Your task to perform on an android device: Find coffee shops on Maps Image 0: 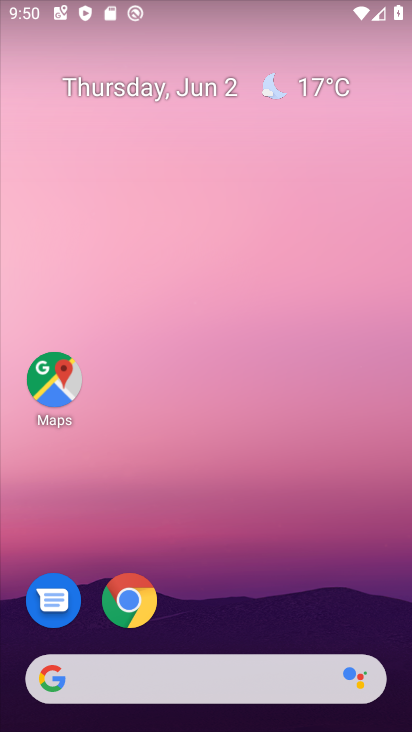
Step 0: drag from (264, 590) to (212, 0)
Your task to perform on an android device: Find coffee shops on Maps Image 1: 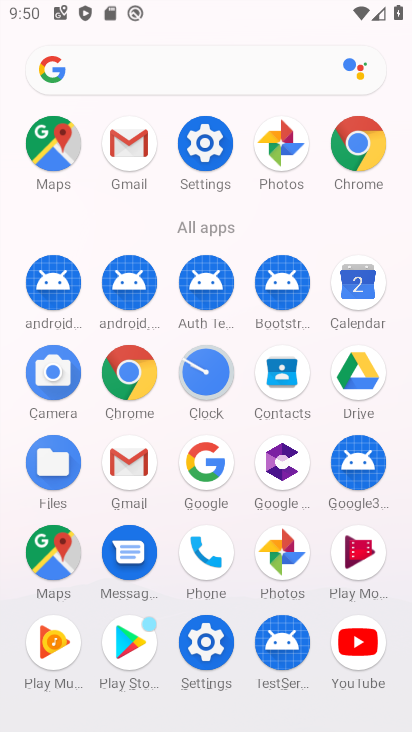
Step 1: click (53, 552)
Your task to perform on an android device: Find coffee shops on Maps Image 2: 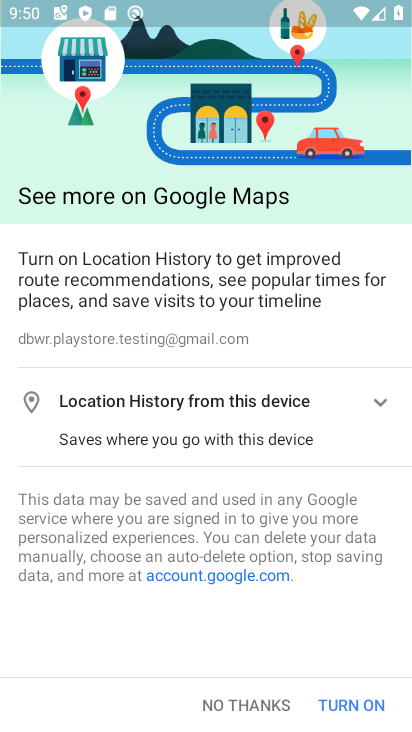
Step 2: click (366, 710)
Your task to perform on an android device: Find coffee shops on Maps Image 3: 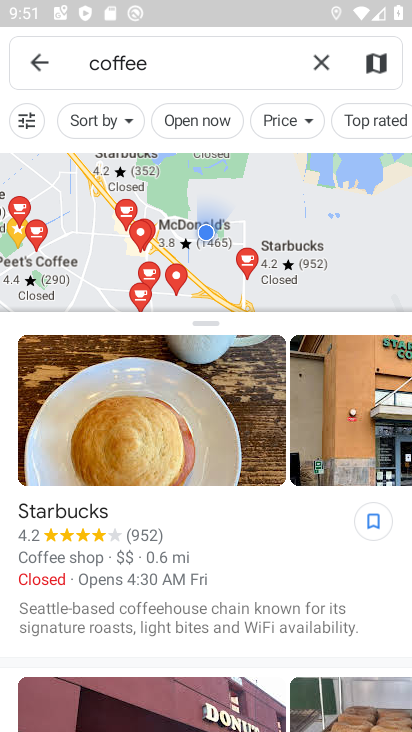
Step 3: task complete